Your task to perform on an android device: change the clock display to analog Image 0: 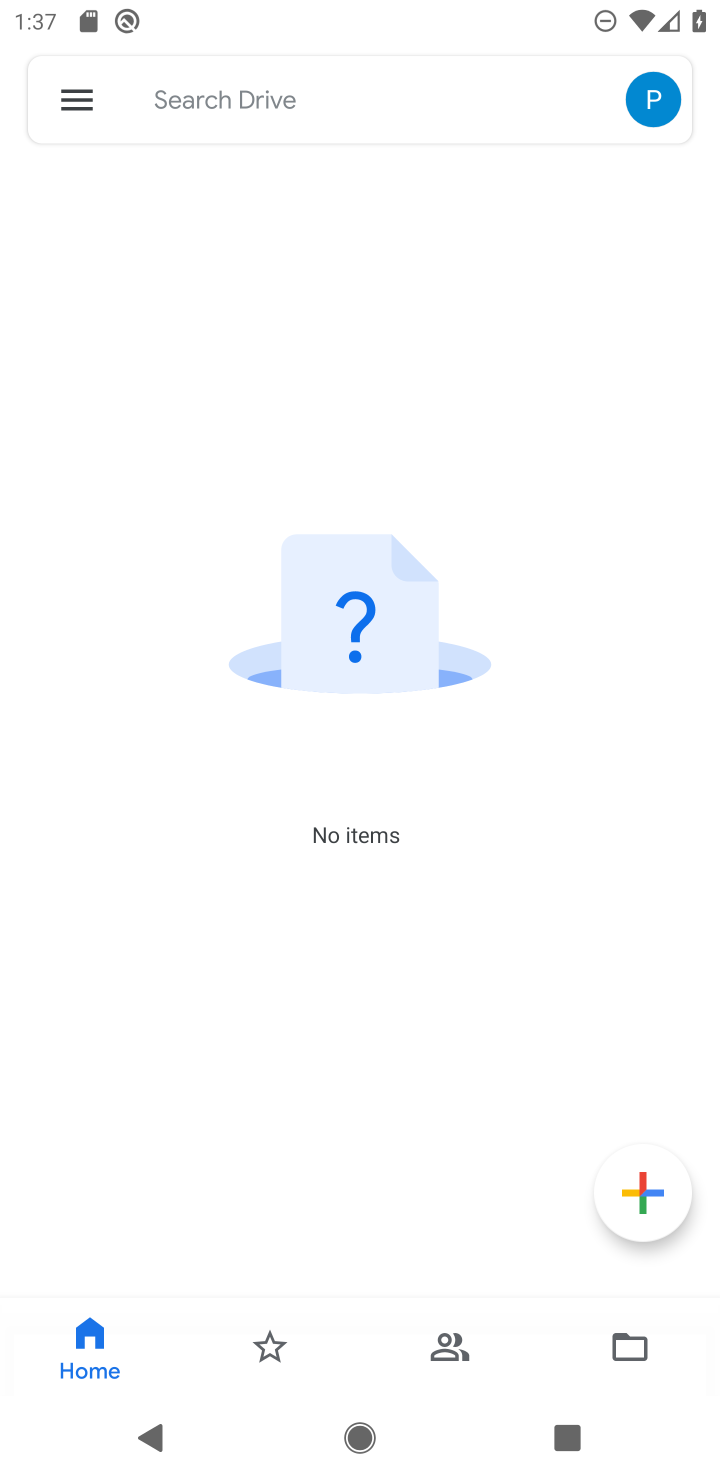
Step 0: press home button
Your task to perform on an android device: change the clock display to analog Image 1: 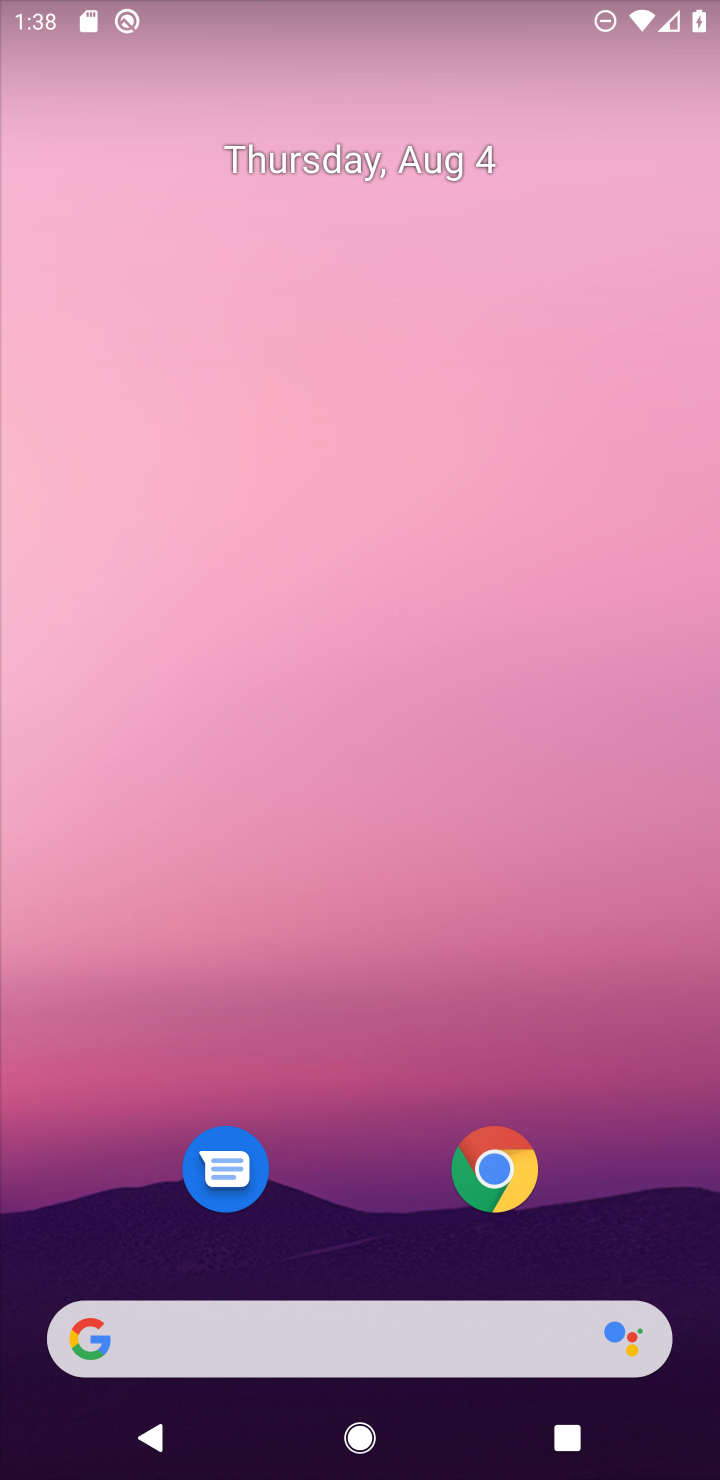
Step 1: drag from (389, 1136) to (388, 49)
Your task to perform on an android device: change the clock display to analog Image 2: 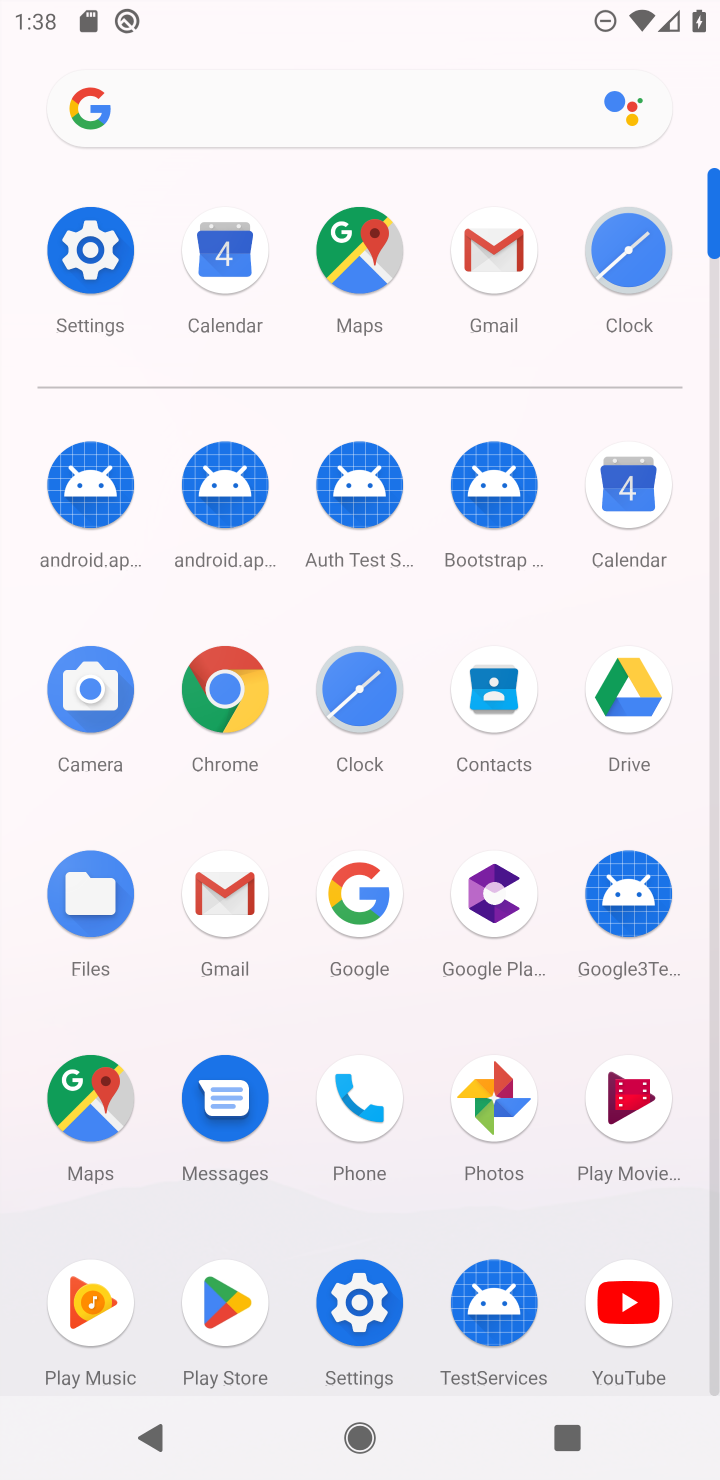
Step 2: click (630, 257)
Your task to perform on an android device: change the clock display to analog Image 3: 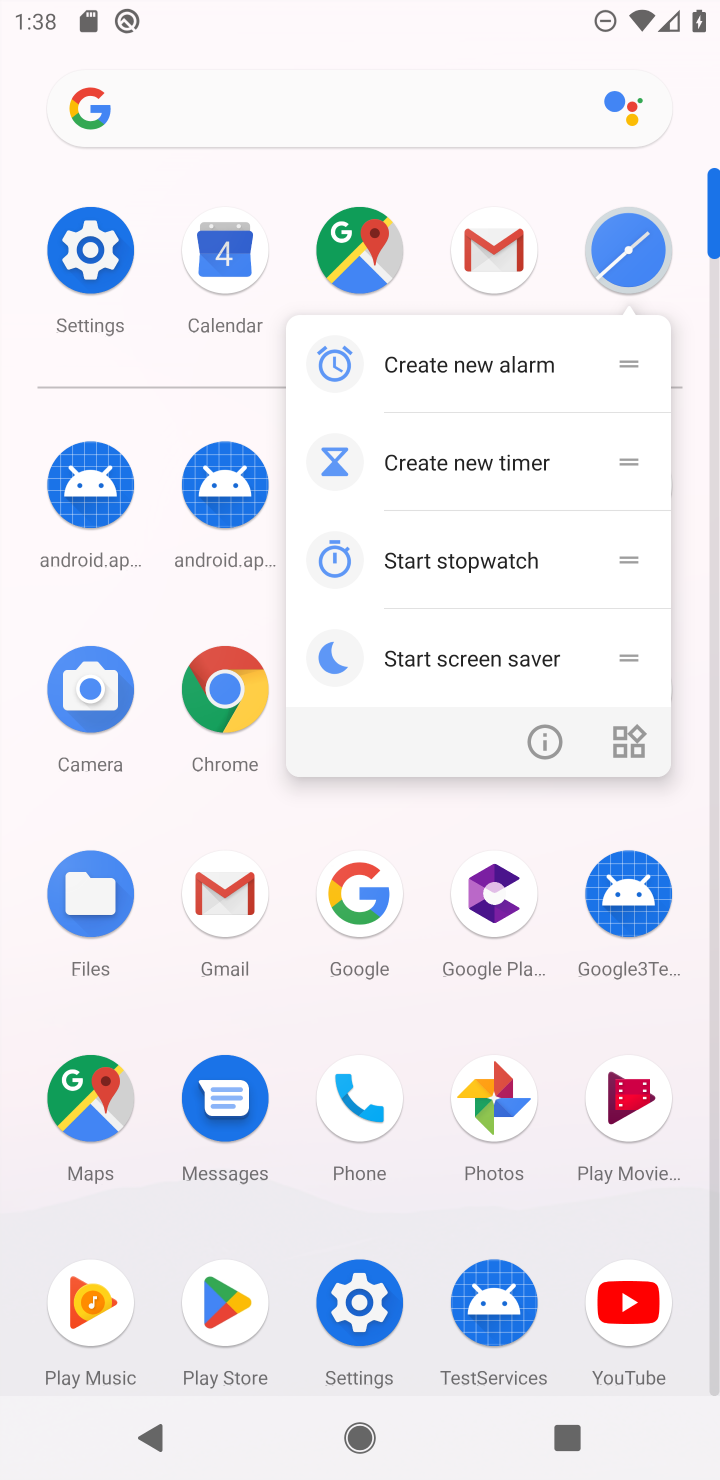
Step 3: click (630, 257)
Your task to perform on an android device: change the clock display to analog Image 4: 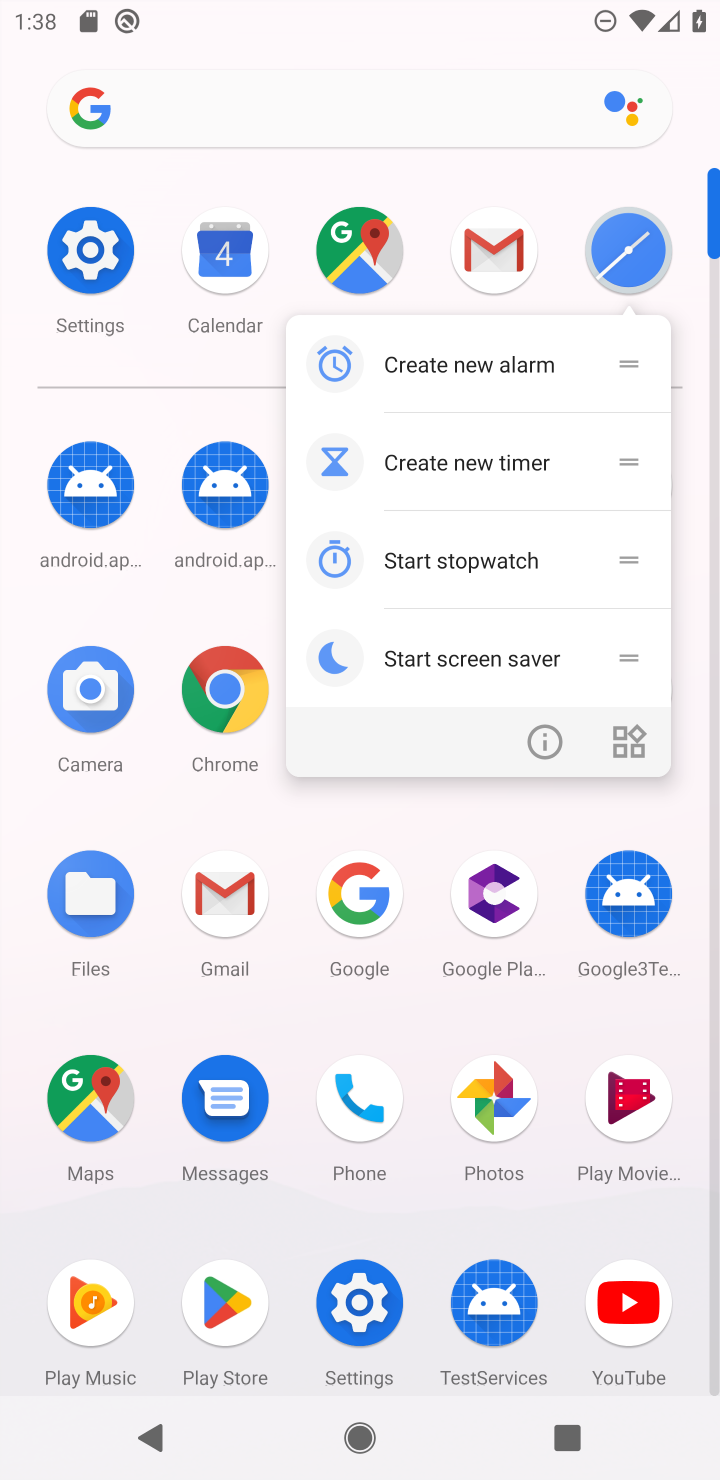
Step 4: click (630, 257)
Your task to perform on an android device: change the clock display to analog Image 5: 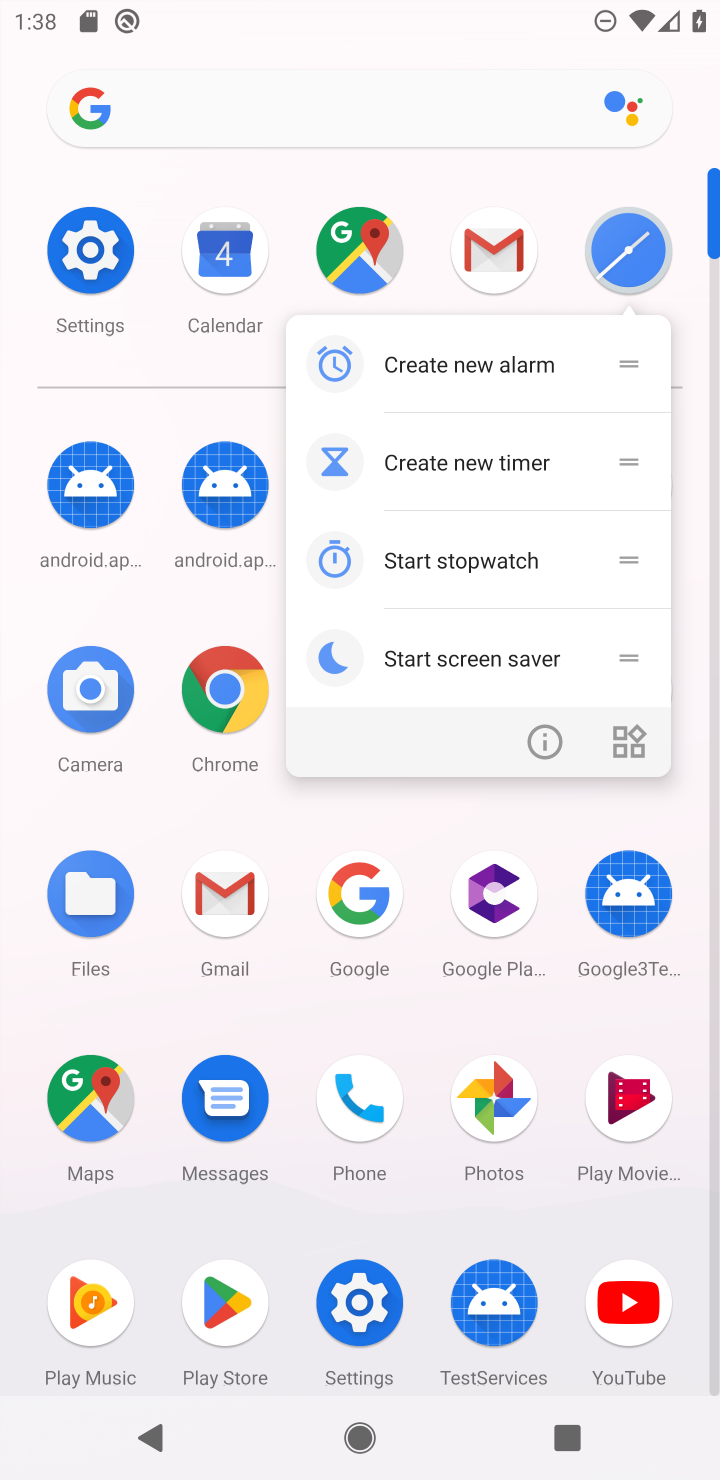
Step 5: click (630, 257)
Your task to perform on an android device: change the clock display to analog Image 6: 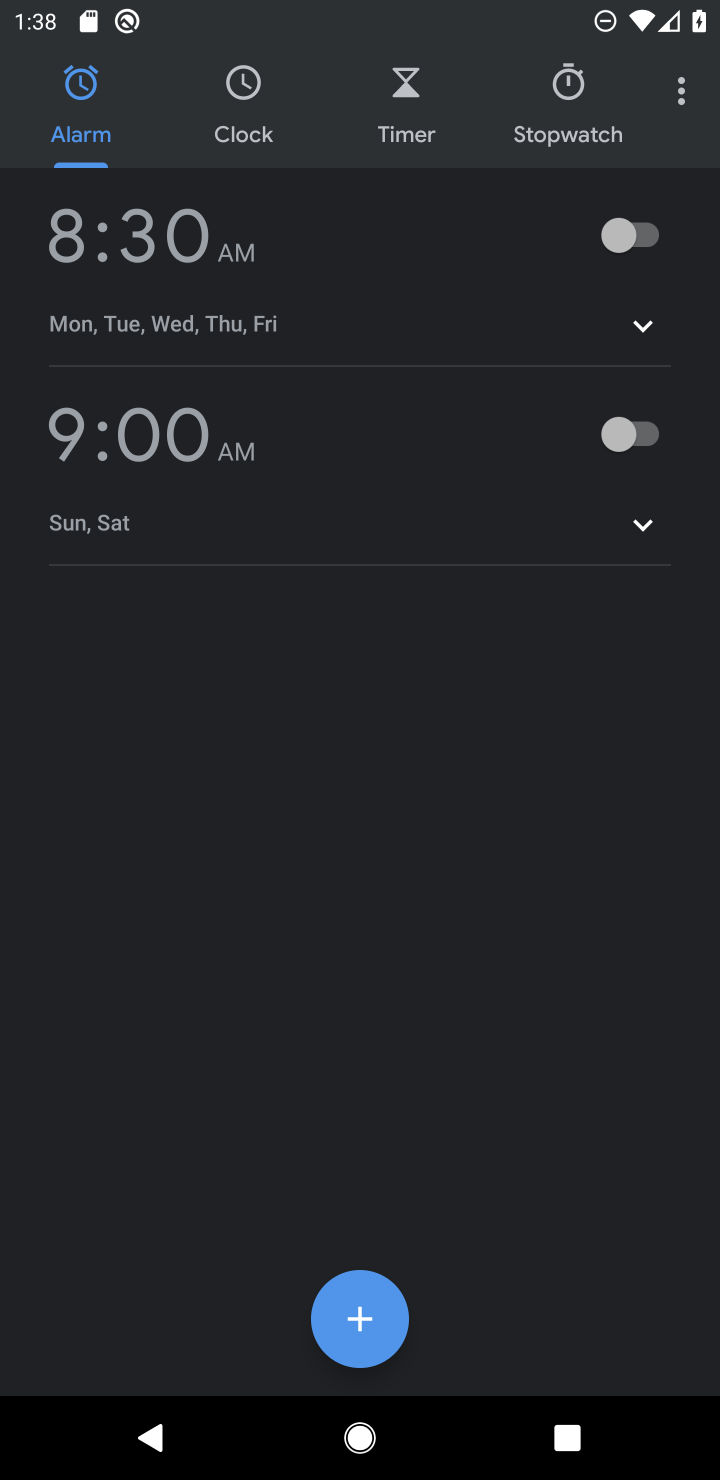
Step 6: click (691, 98)
Your task to perform on an android device: change the clock display to analog Image 7: 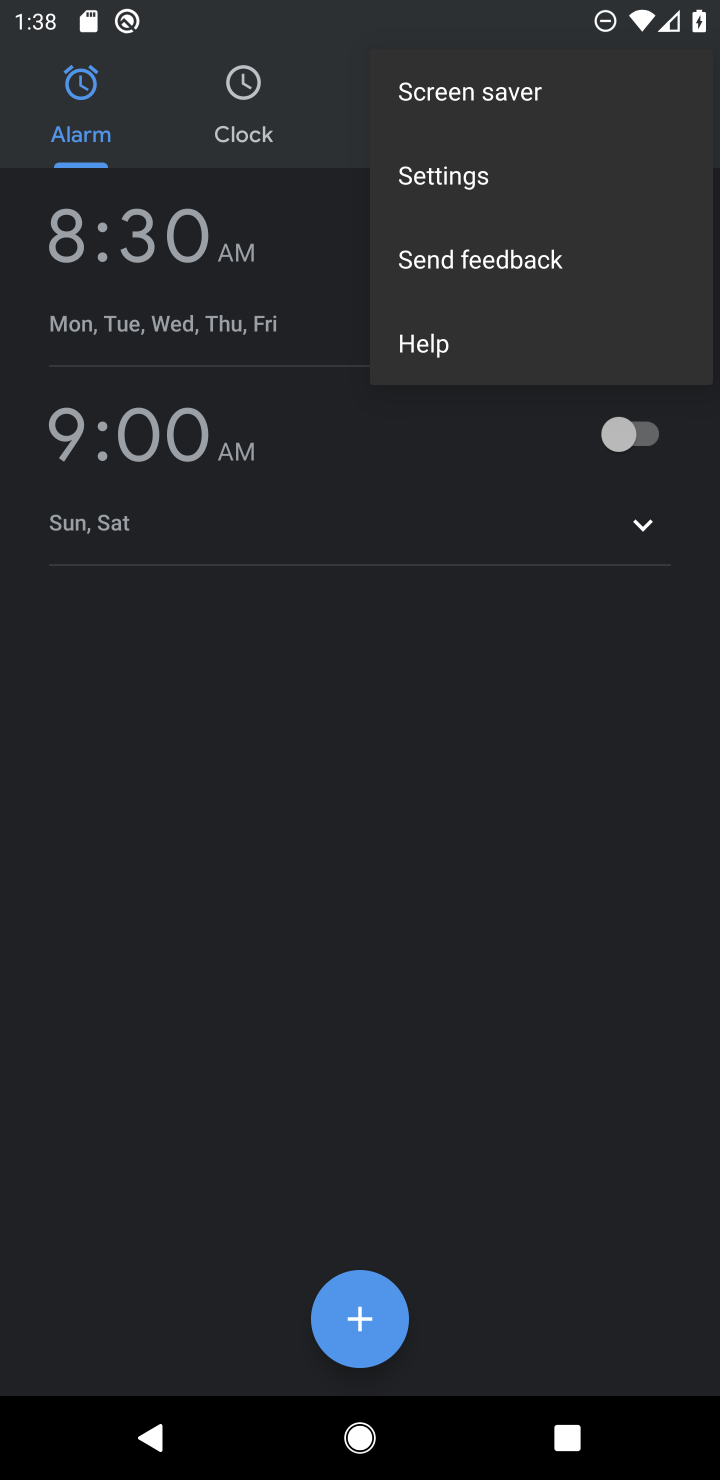
Step 7: click (496, 183)
Your task to perform on an android device: change the clock display to analog Image 8: 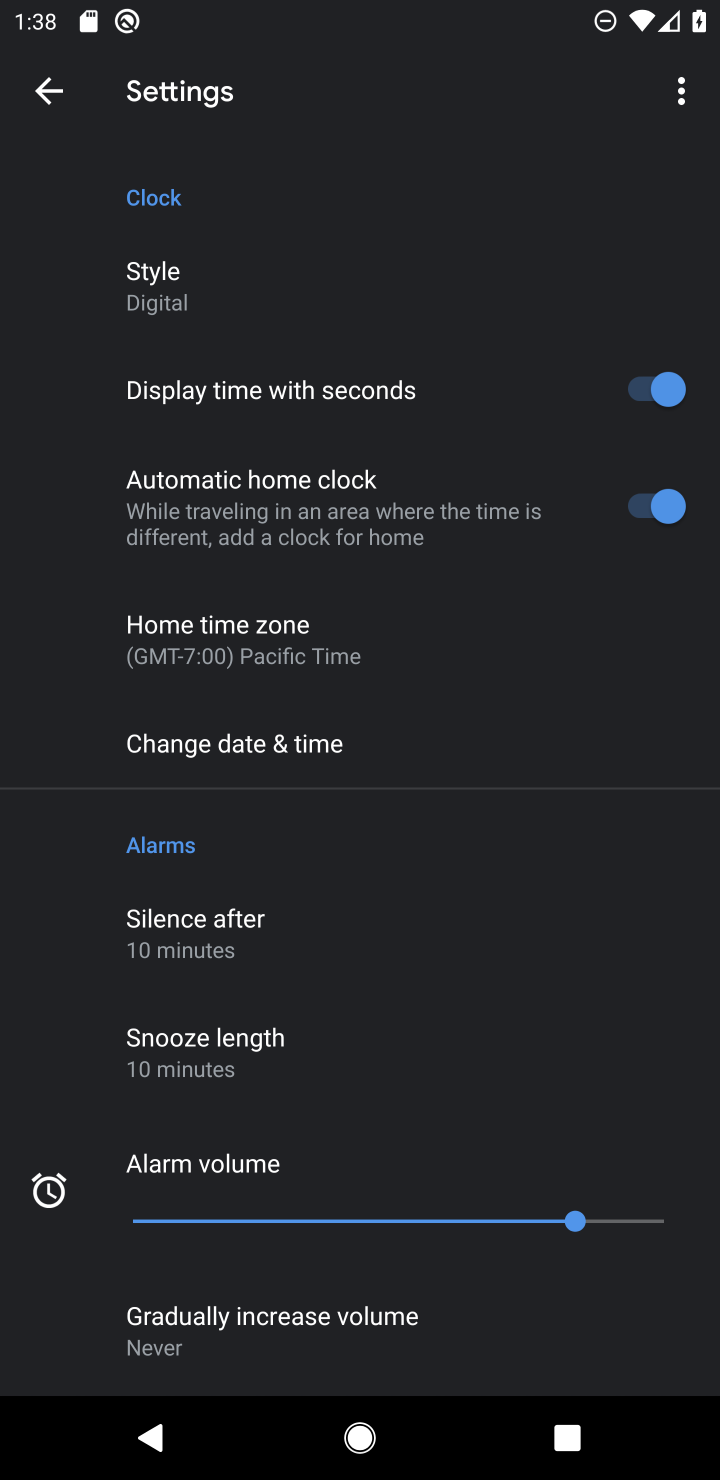
Step 8: click (151, 281)
Your task to perform on an android device: change the clock display to analog Image 9: 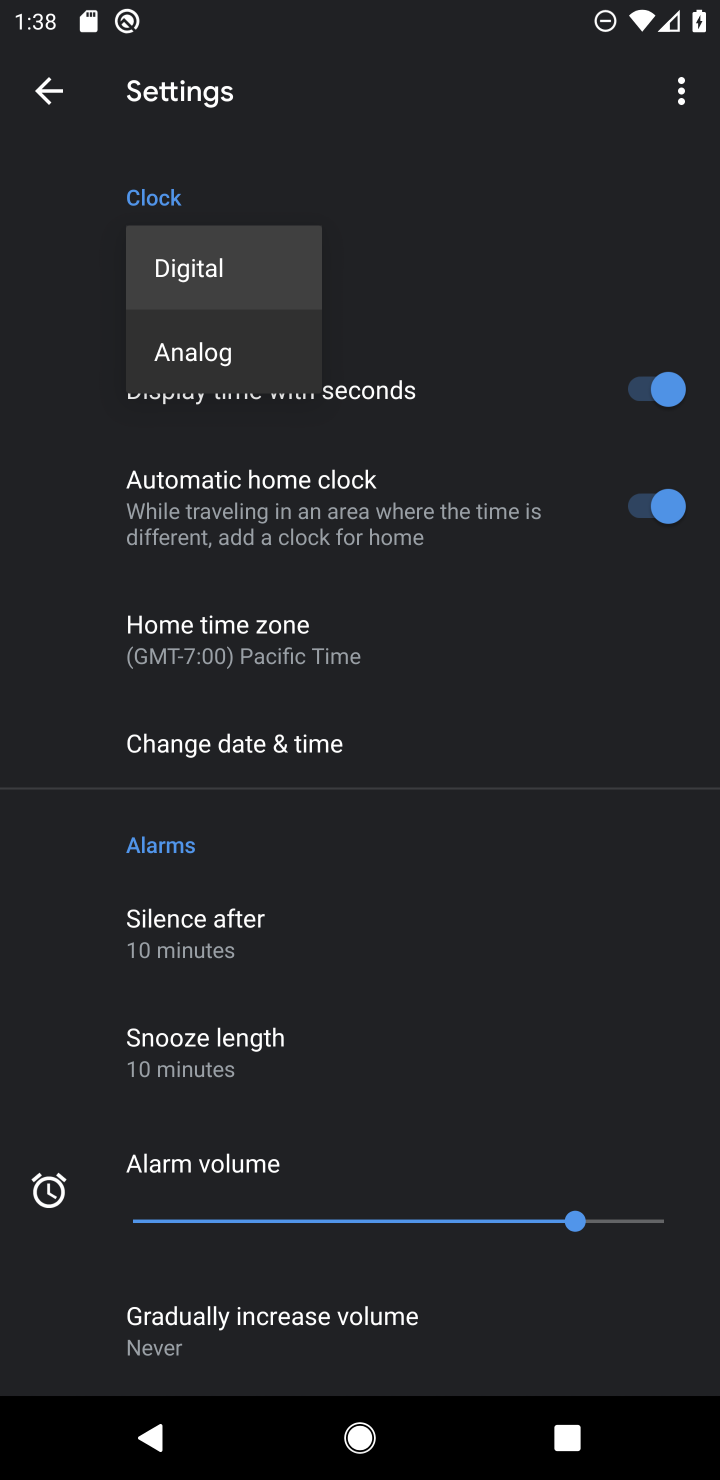
Step 9: click (194, 354)
Your task to perform on an android device: change the clock display to analog Image 10: 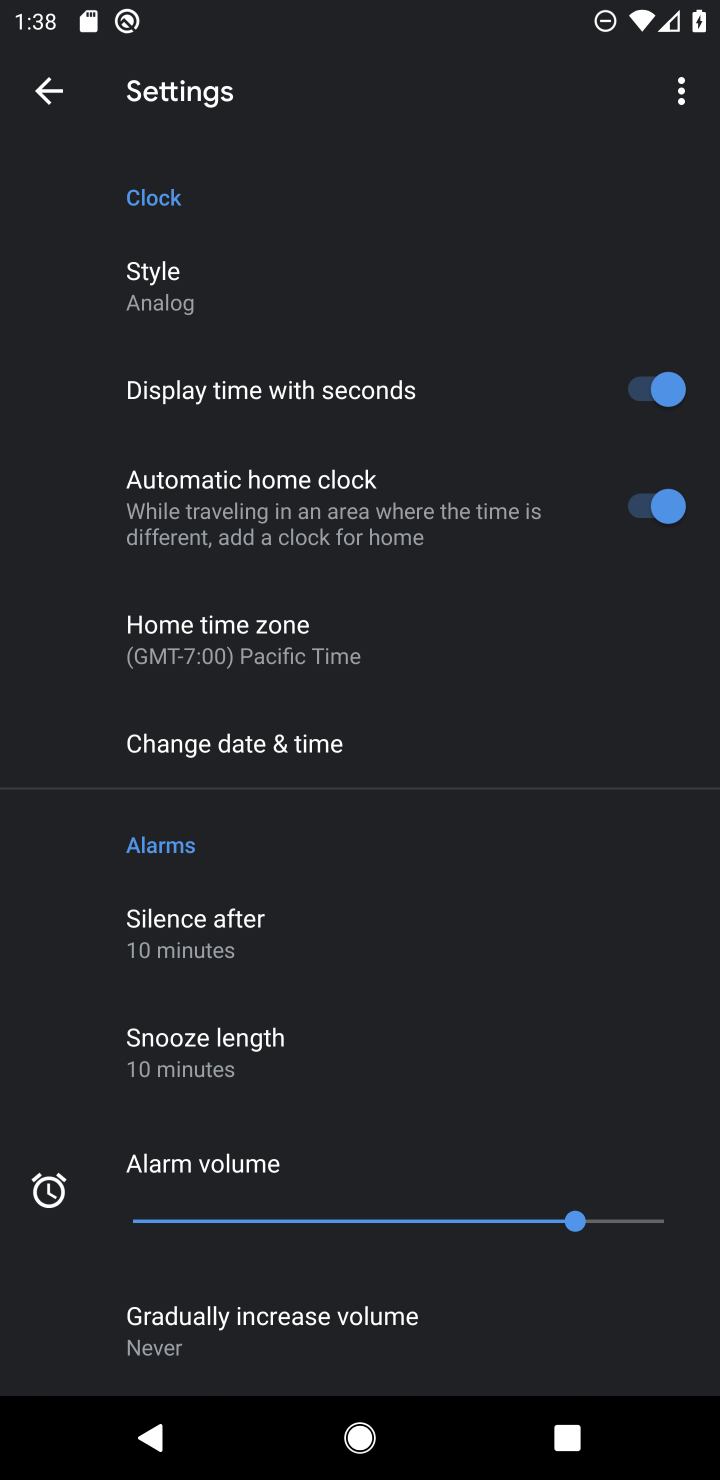
Step 10: task complete